Your task to perform on an android device: Is it going to rain today? Image 0: 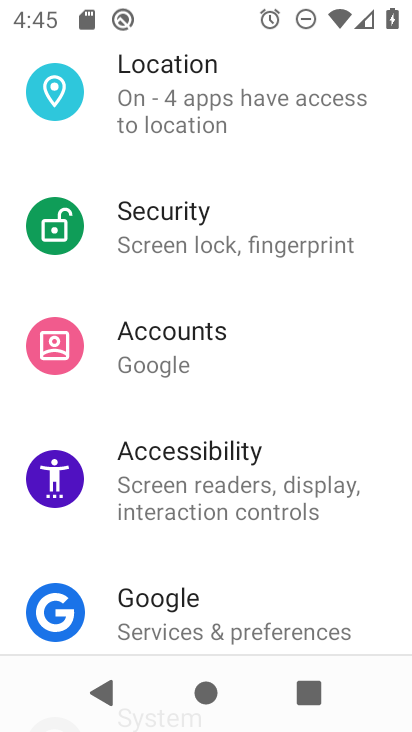
Step 0: press home button
Your task to perform on an android device: Is it going to rain today? Image 1: 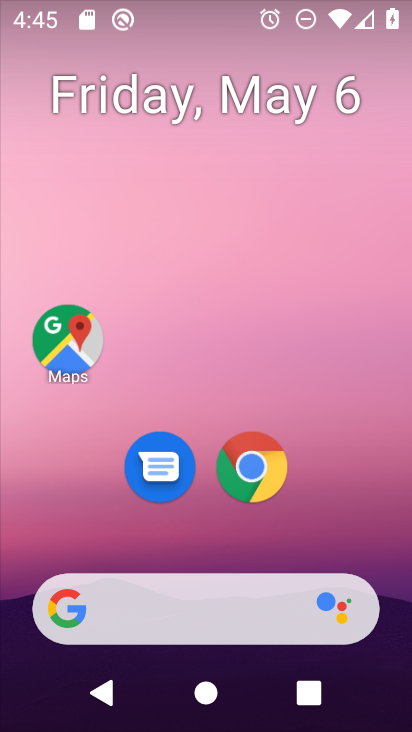
Step 1: drag from (297, 565) to (253, 198)
Your task to perform on an android device: Is it going to rain today? Image 2: 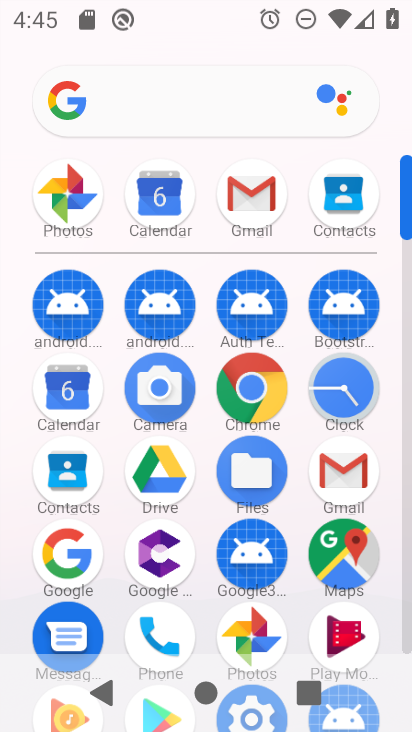
Step 2: click (81, 573)
Your task to perform on an android device: Is it going to rain today? Image 3: 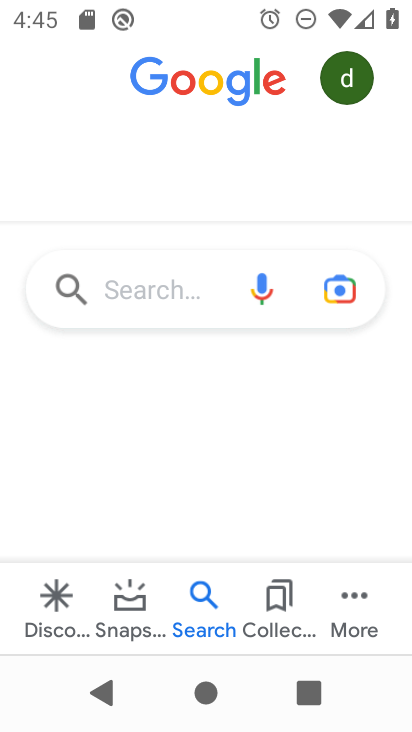
Step 3: click (153, 294)
Your task to perform on an android device: Is it going to rain today? Image 4: 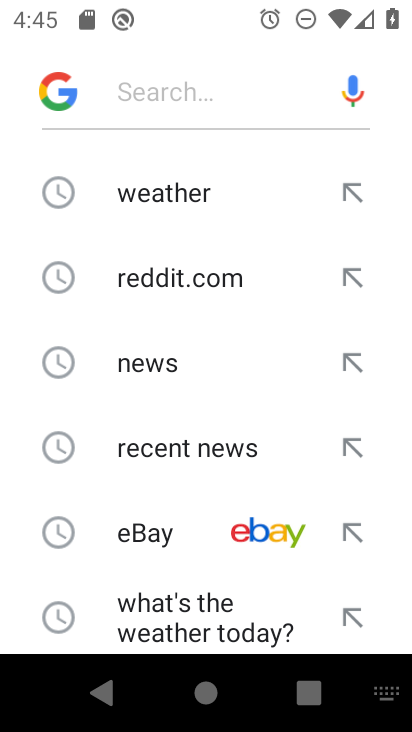
Step 4: click (211, 195)
Your task to perform on an android device: Is it going to rain today? Image 5: 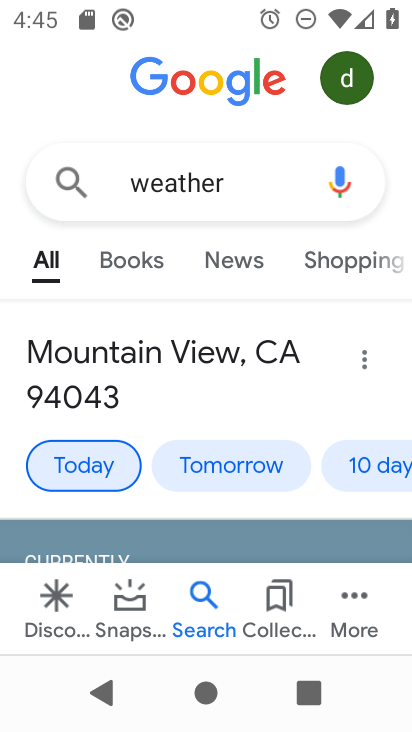
Step 5: task complete